Your task to perform on an android device: turn on sleep mode Image 0: 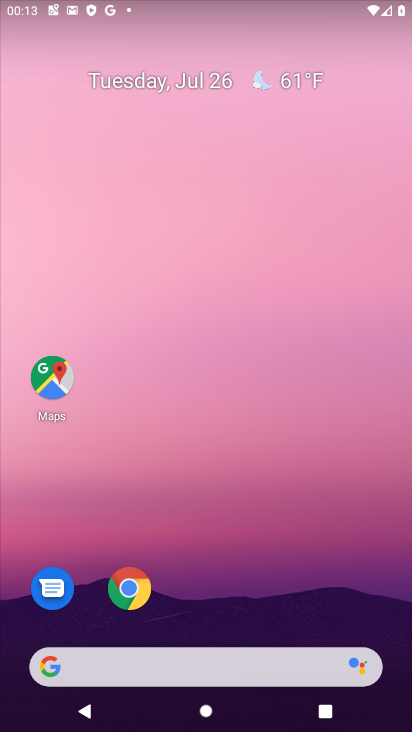
Step 0: press home button
Your task to perform on an android device: turn on sleep mode Image 1: 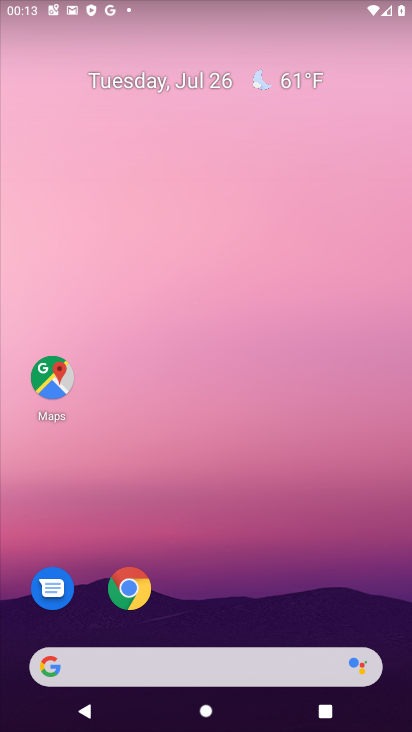
Step 1: drag from (210, 620) to (173, 127)
Your task to perform on an android device: turn on sleep mode Image 2: 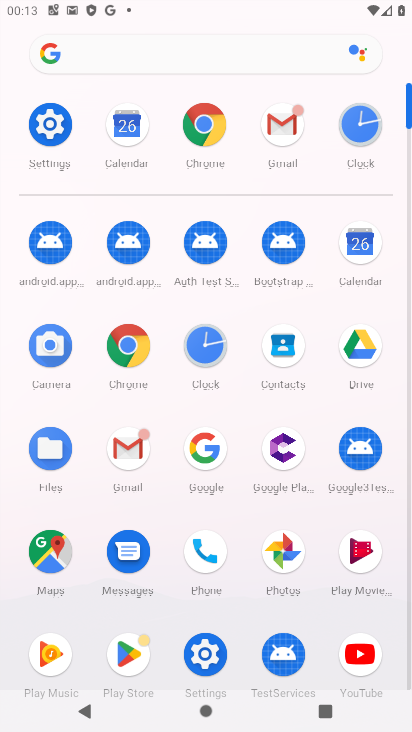
Step 2: click (47, 119)
Your task to perform on an android device: turn on sleep mode Image 3: 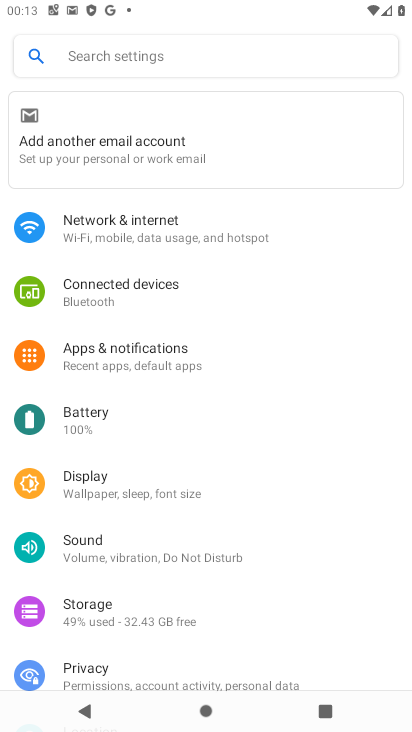
Step 3: click (124, 481)
Your task to perform on an android device: turn on sleep mode Image 4: 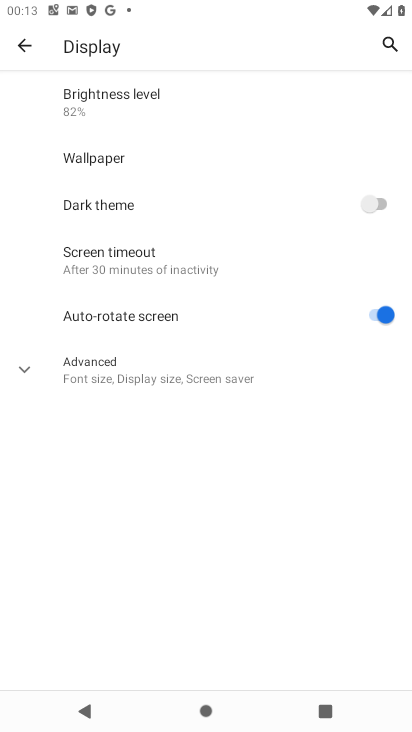
Step 4: click (19, 366)
Your task to perform on an android device: turn on sleep mode Image 5: 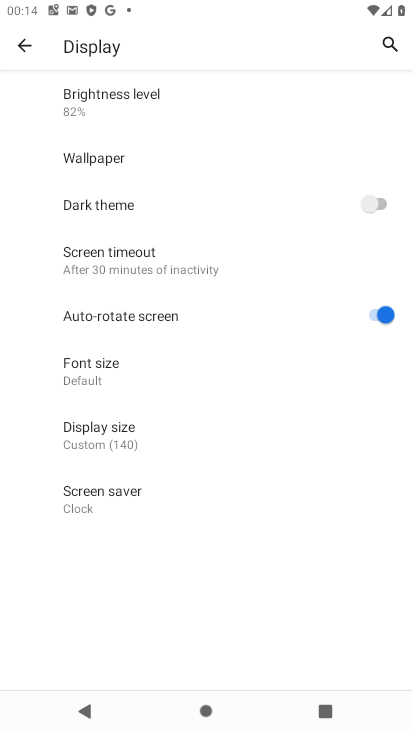
Step 5: task complete